Your task to perform on an android device: toggle pop-ups in chrome Image 0: 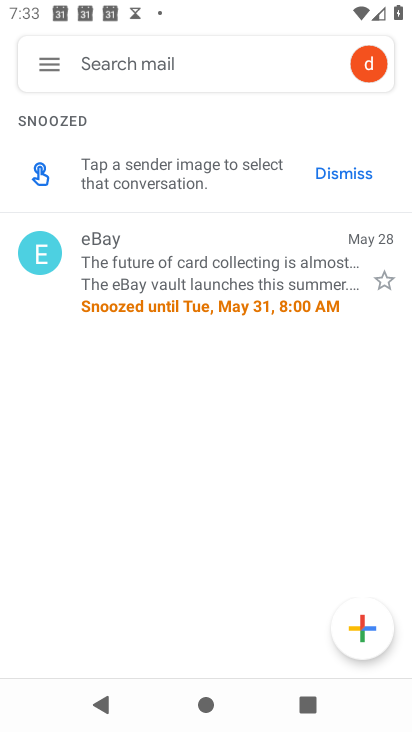
Step 0: press home button
Your task to perform on an android device: toggle pop-ups in chrome Image 1: 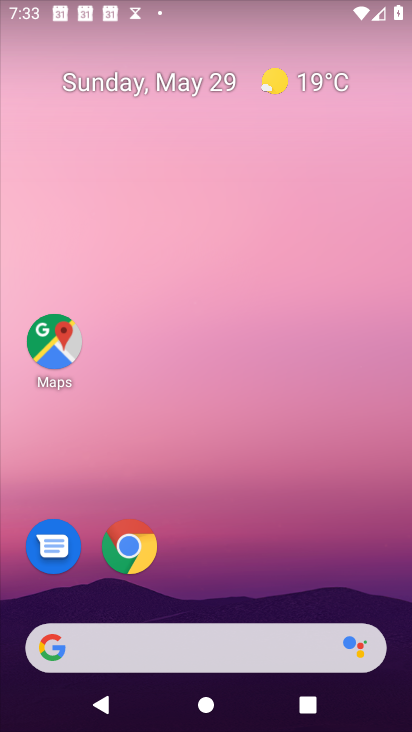
Step 1: click (131, 548)
Your task to perform on an android device: toggle pop-ups in chrome Image 2: 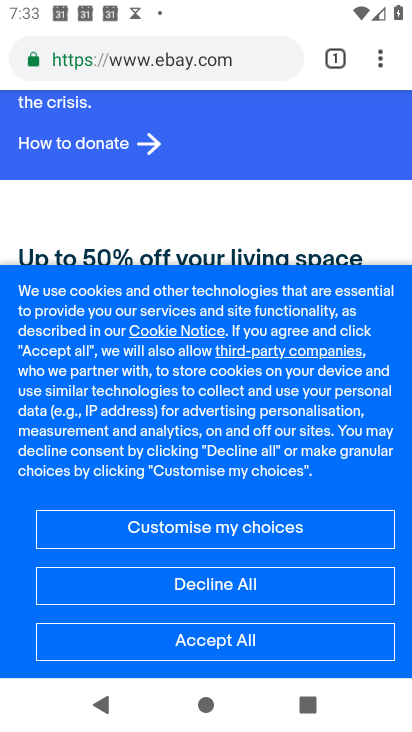
Step 2: click (377, 62)
Your task to perform on an android device: toggle pop-ups in chrome Image 3: 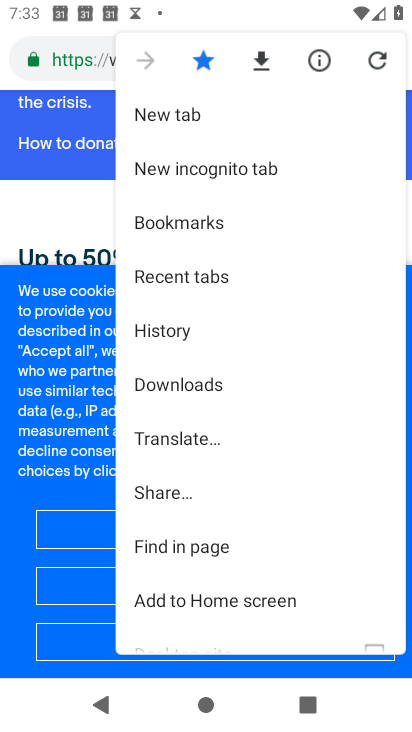
Step 3: drag from (200, 517) to (231, 203)
Your task to perform on an android device: toggle pop-ups in chrome Image 4: 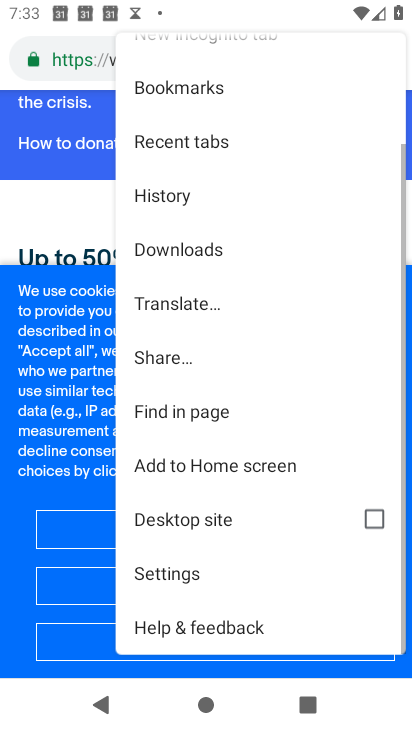
Step 4: click (190, 583)
Your task to perform on an android device: toggle pop-ups in chrome Image 5: 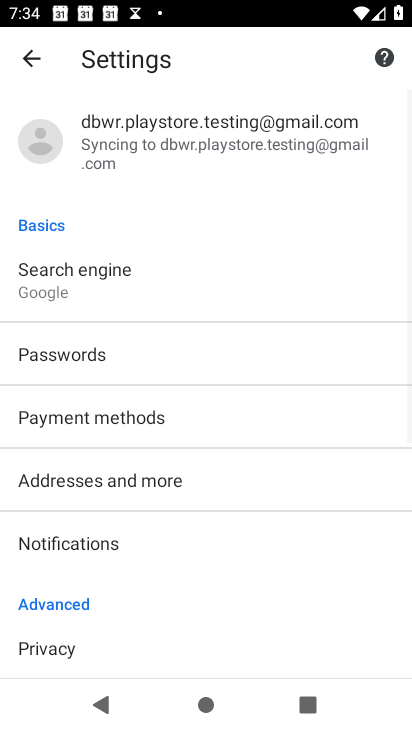
Step 5: drag from (112, 633) to (236, 234)
Your task to perform on an android device: toggle pop-ups in chrome Image 6: 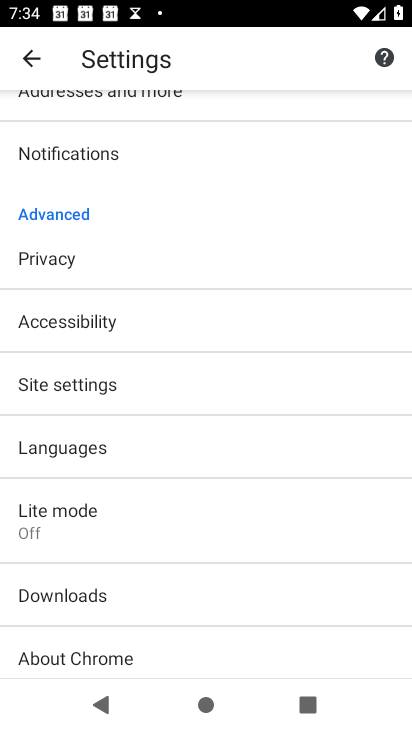
Step 6: click (59, 391)
Your task to perform on an android device: toggle pop-ups in chrome Image 7: 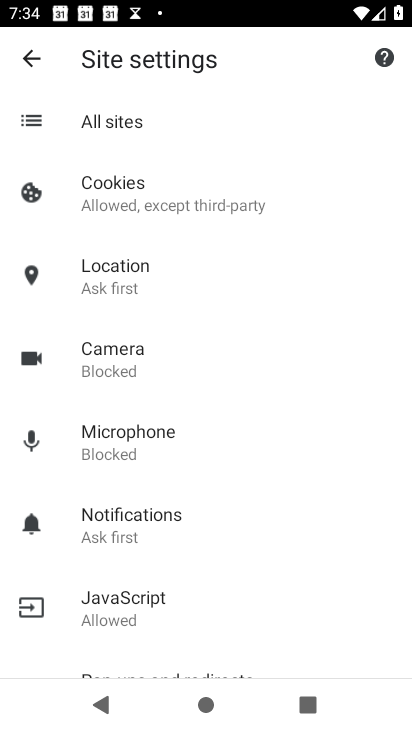
Step 7: drag from (119, 606) to (166, 157)
Your task to perform on an android device: toggle pop-ups in chrome Image 8: 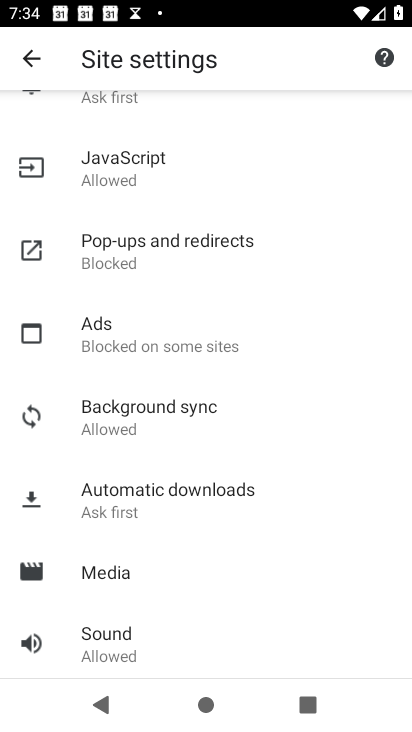
Step 8: click (127, 263)
Your task to perform on an android device: toggle pop-ups in chrome Image 9: 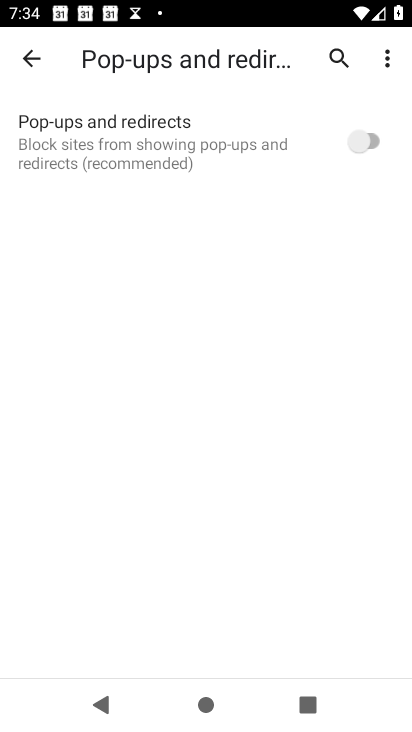
Step 9: click (365, 135)
Your task to perform on an android device: toggle pop-ups in chrome Image 10: 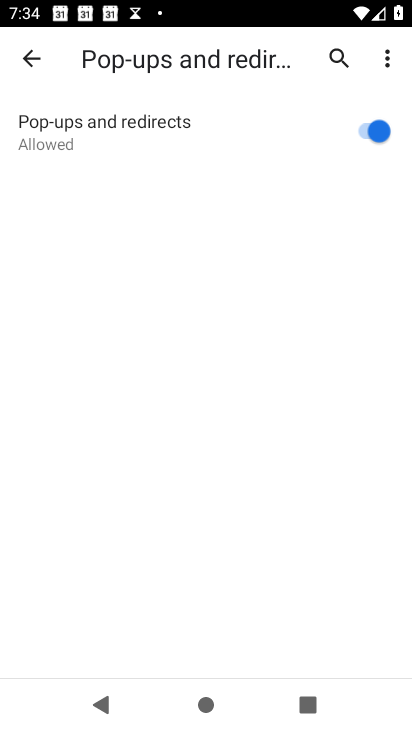
Step 10: task complete